Your task to perform on an android device: How do I get to the nearest Macy's? Image 0: 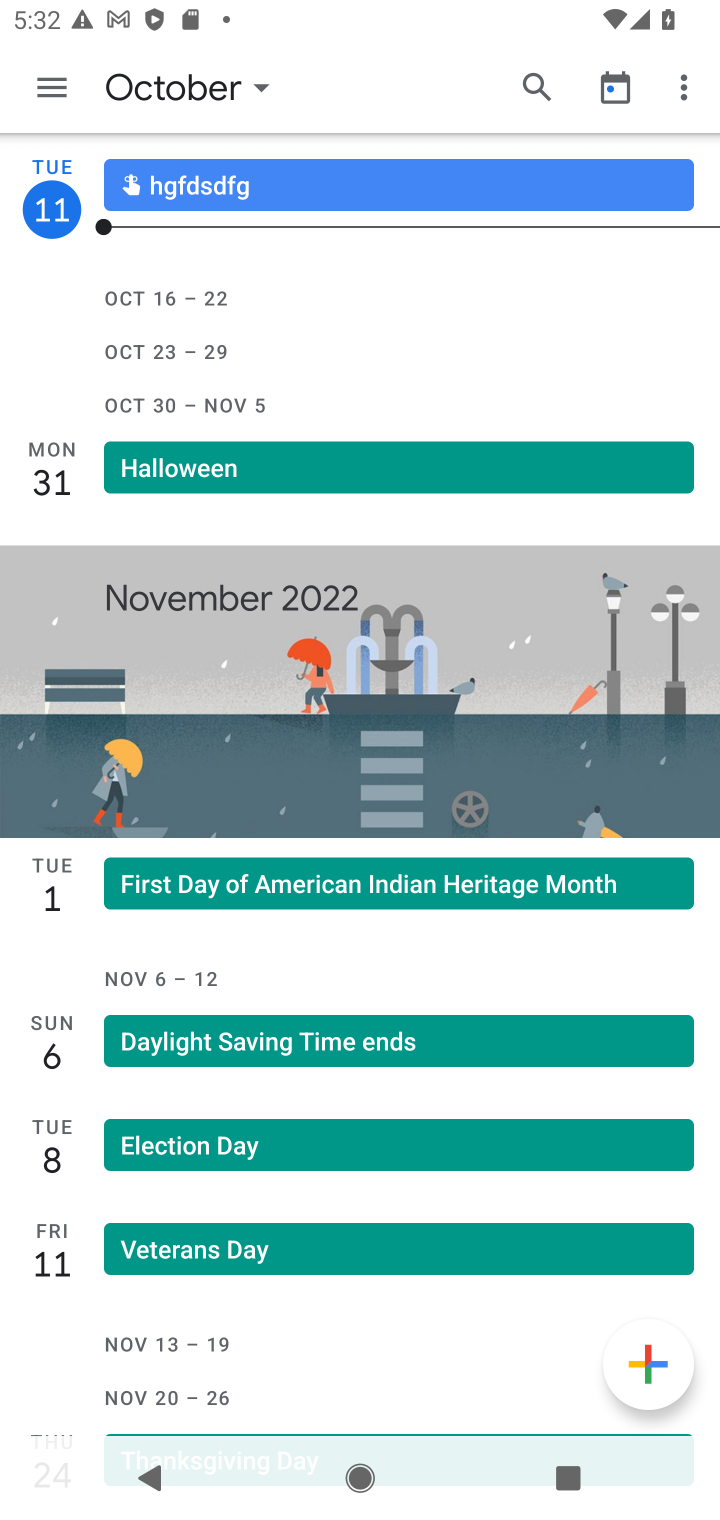
Step 0: press home button
Your task to perform on an android device: How do I get to the nearest Macy's? Image 1: 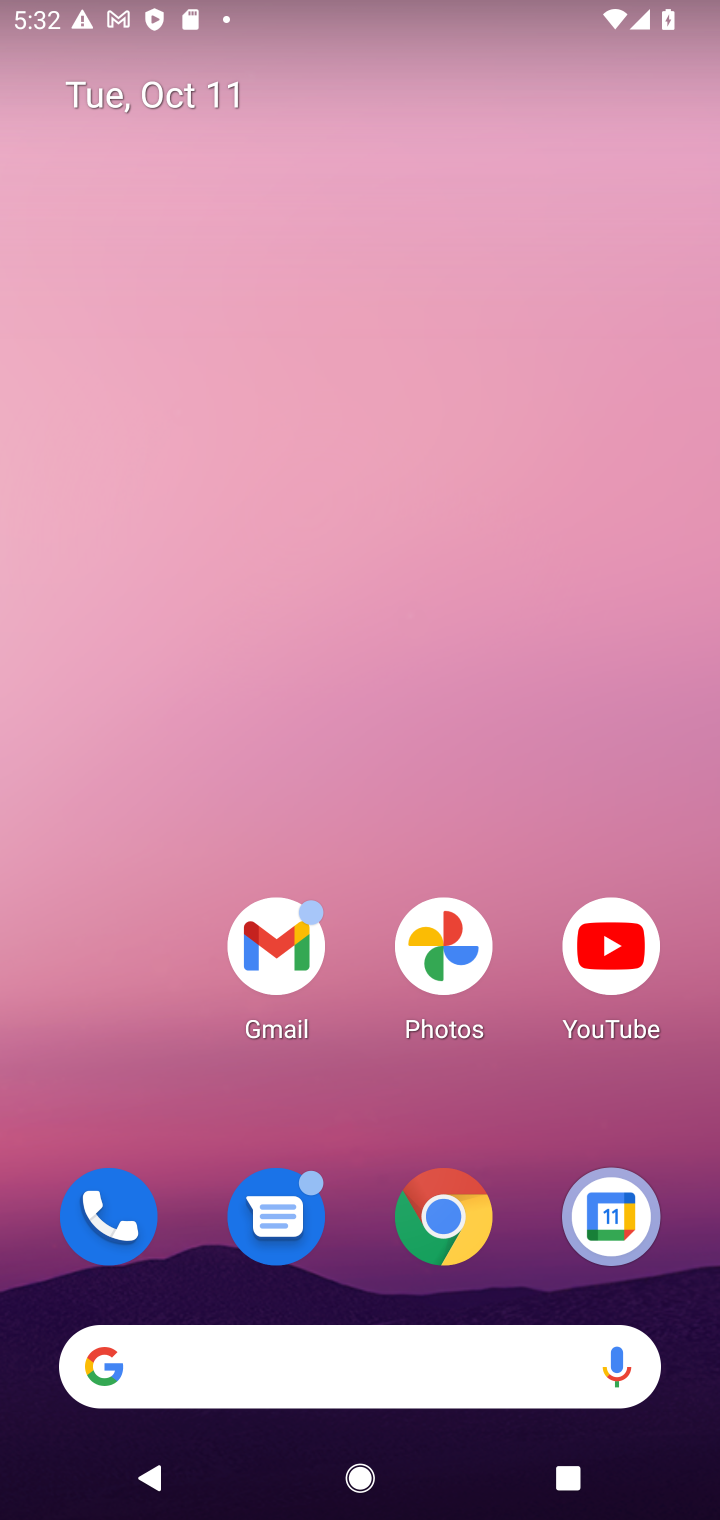
Step 1: click (446, 1222)
Your task to perform on an android device: How do I get to the nearest Macy's? Image 2: 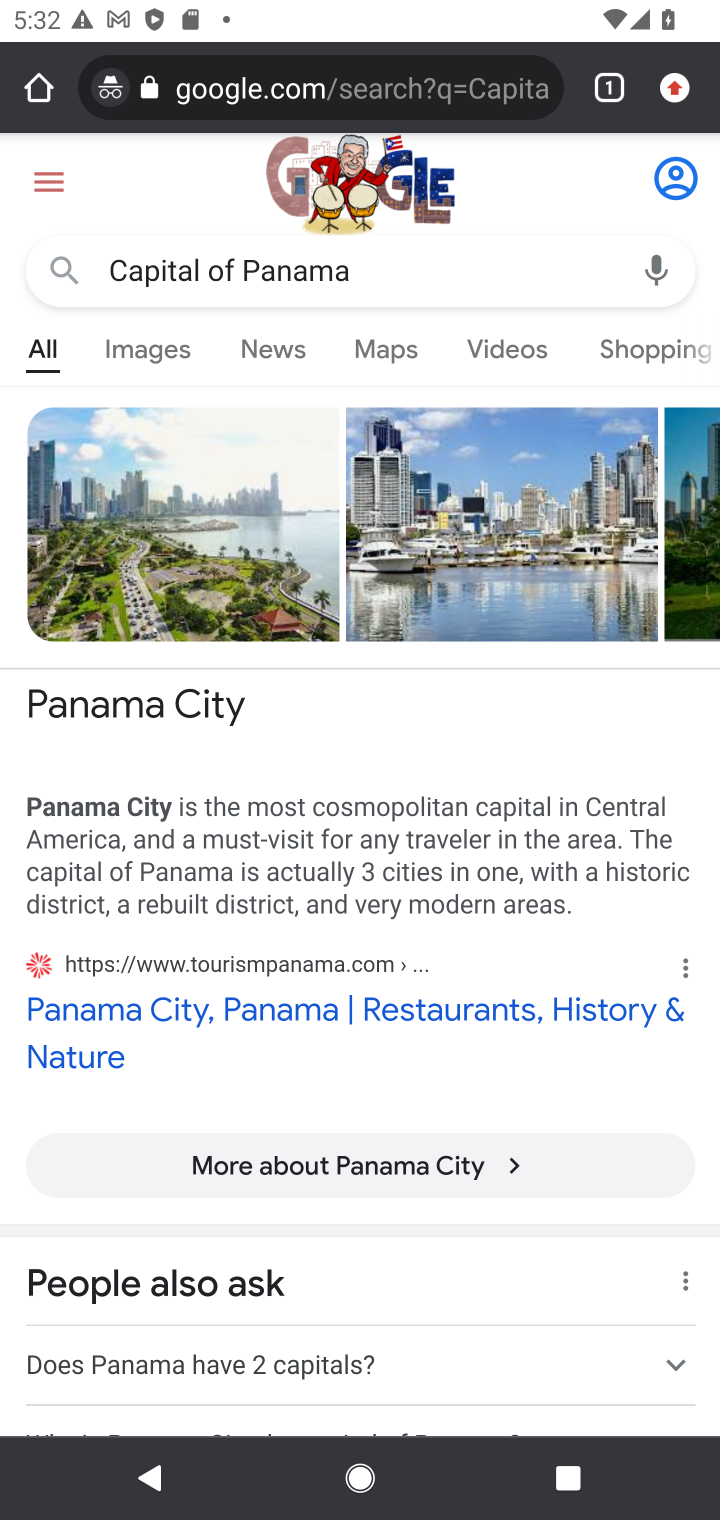
Step 2: click (356, 78)
Your task to perform on an android device: How do I get to the nearest Macy's? Image 3: 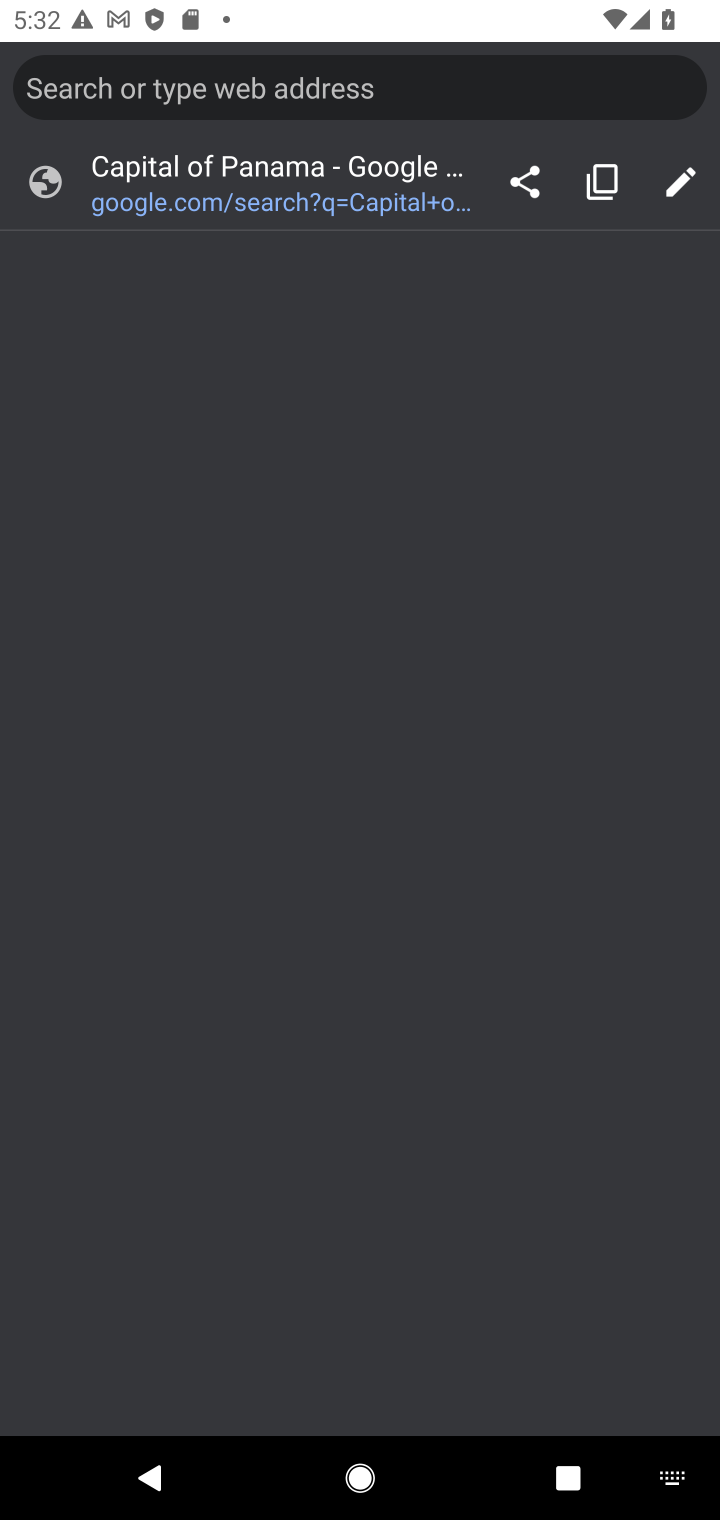
Step 3: type "How do I get to the nearest Macy's?"
Your task to perform on an android device: How do I get to the nearest Macy's? Image 4: 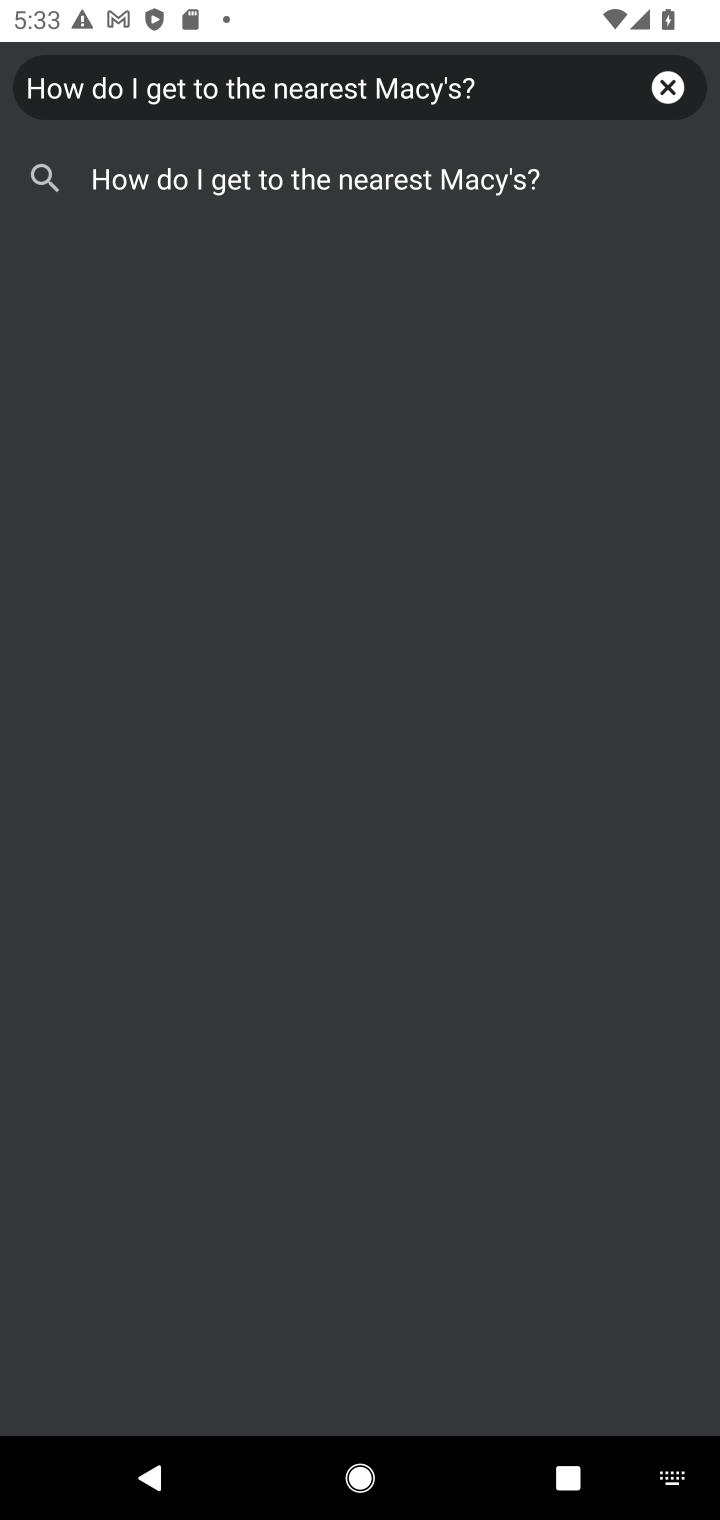
Step 4: click (395, 183)
Your task to perform on an android device: How do I get to the nearest Macy's? Image 5: 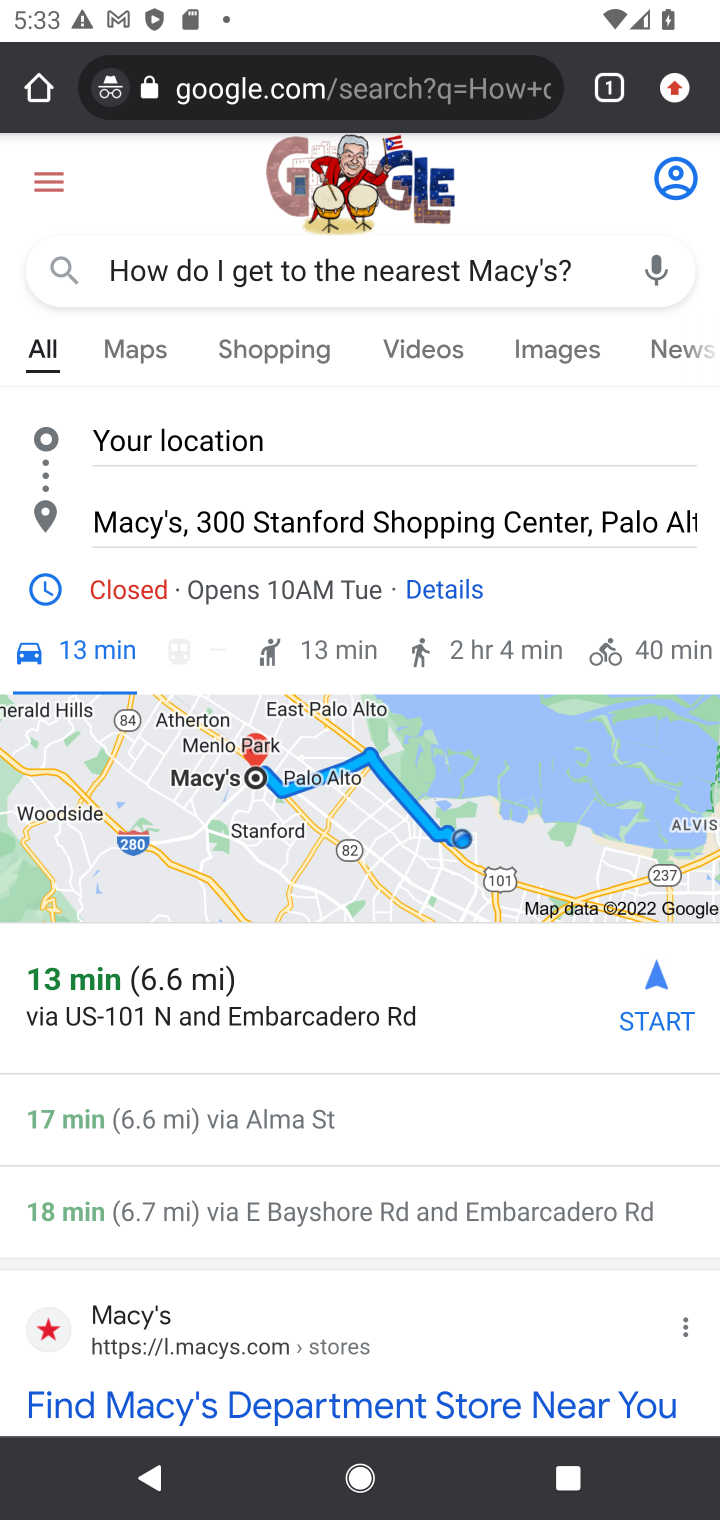
Step 5: task complete